Your task to perform on an android device: Search for vegetarian restaurants on Maps Image 0: 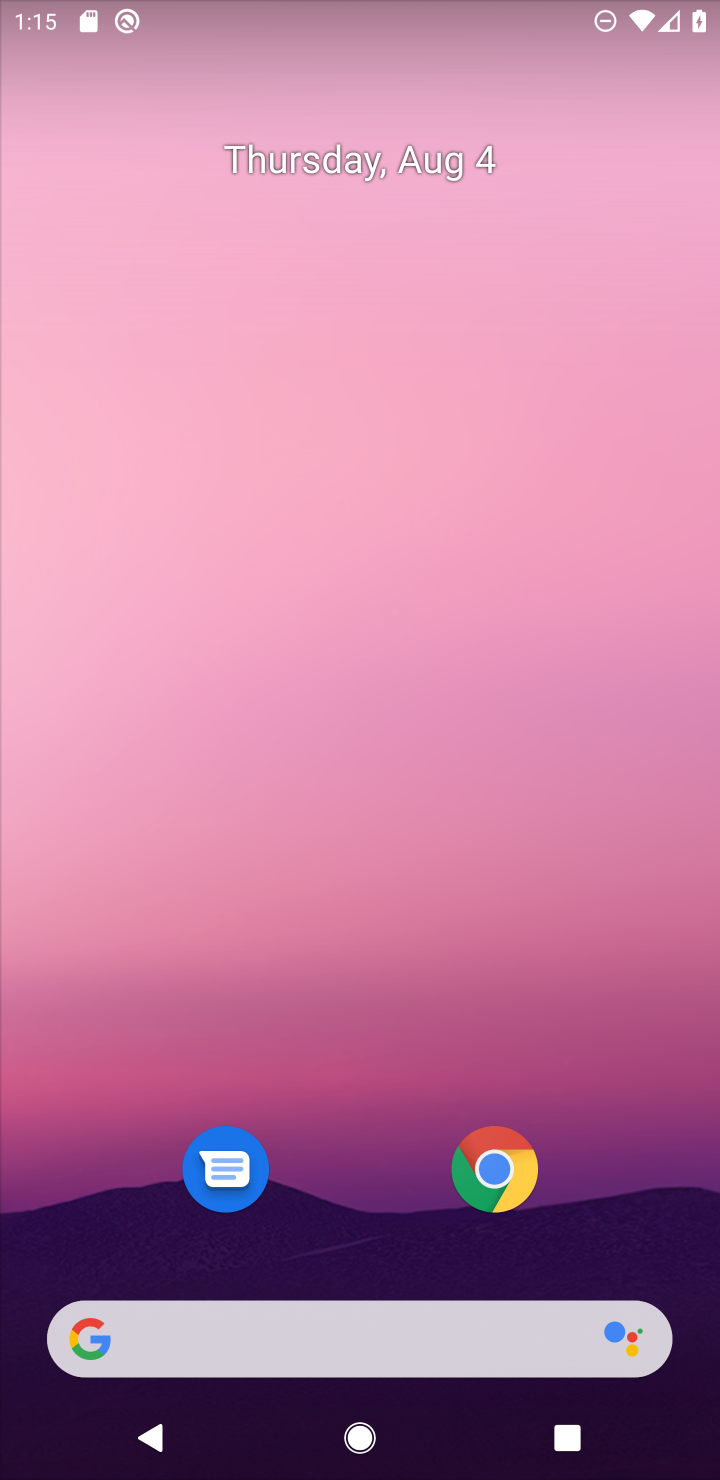
Step 0: drag from (352, 1242) to (414, 52)
Your task to perform on an android device: Search for vegetarian restaurants on Maps Image 1: 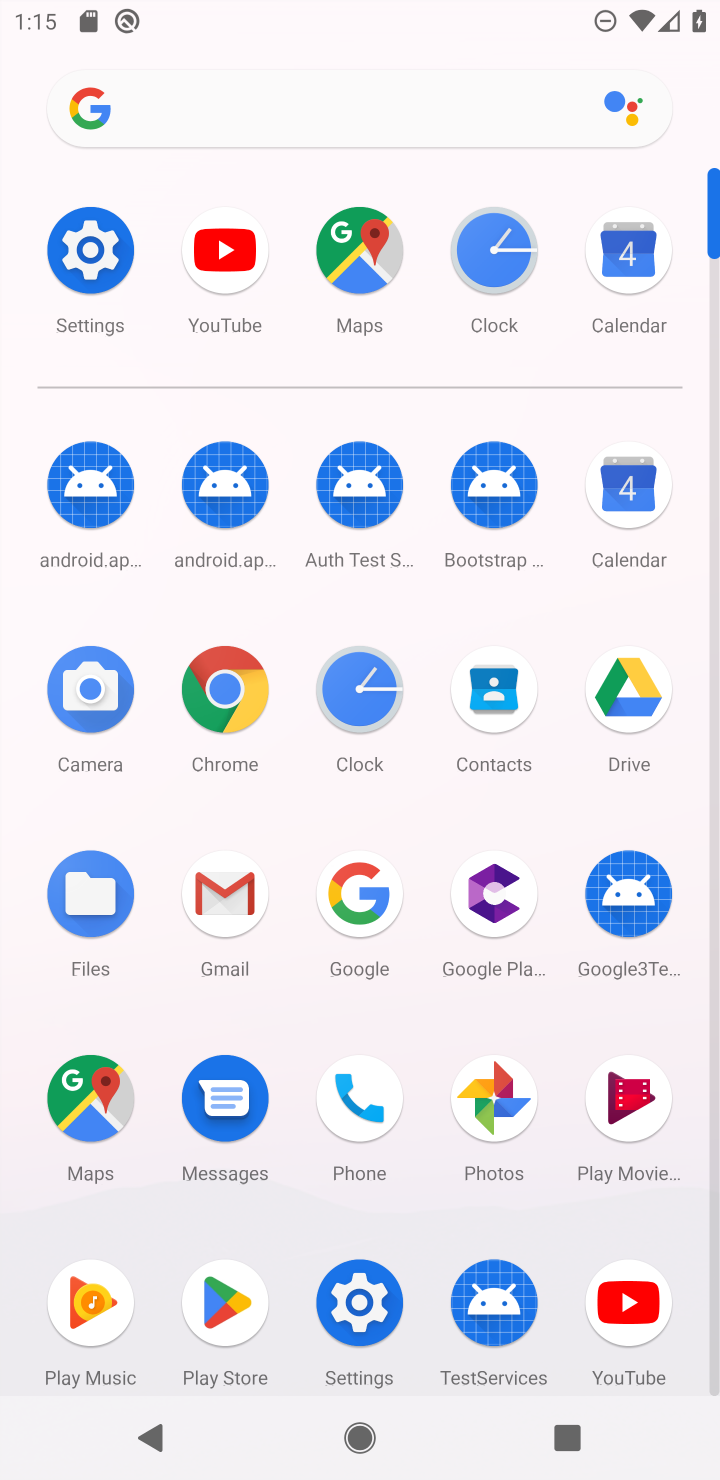
Step 1: click (359, 255)
Your task to perform on an android device: Search for vegetarian restaurants on Maps Image 2: 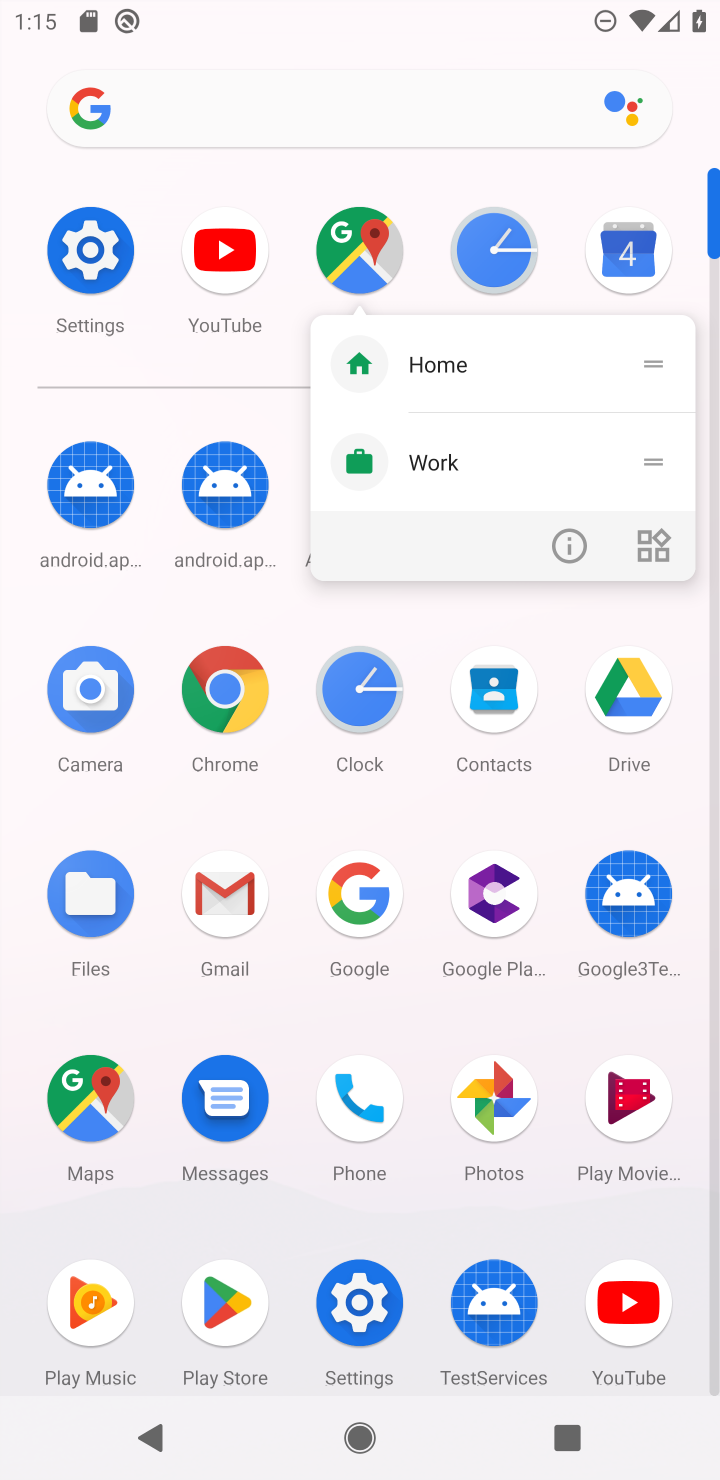
Step 2: click (359, 255)
Your task to perform on an android device: Search for vegetarian restaurants on Maps Image 3: 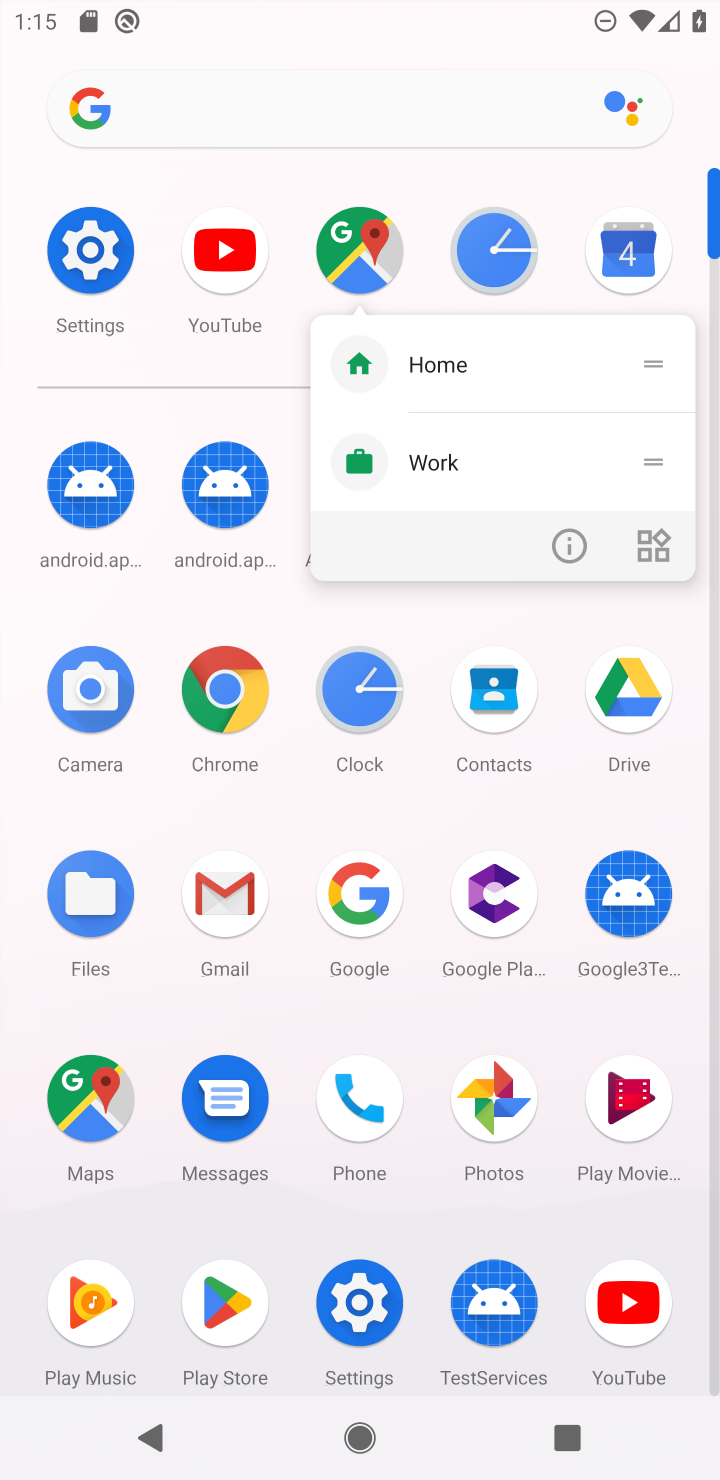
Step 3: click (359, 255)
Your task to perform on an android device: Search for vegetarian restaurants on Maps Image 4: 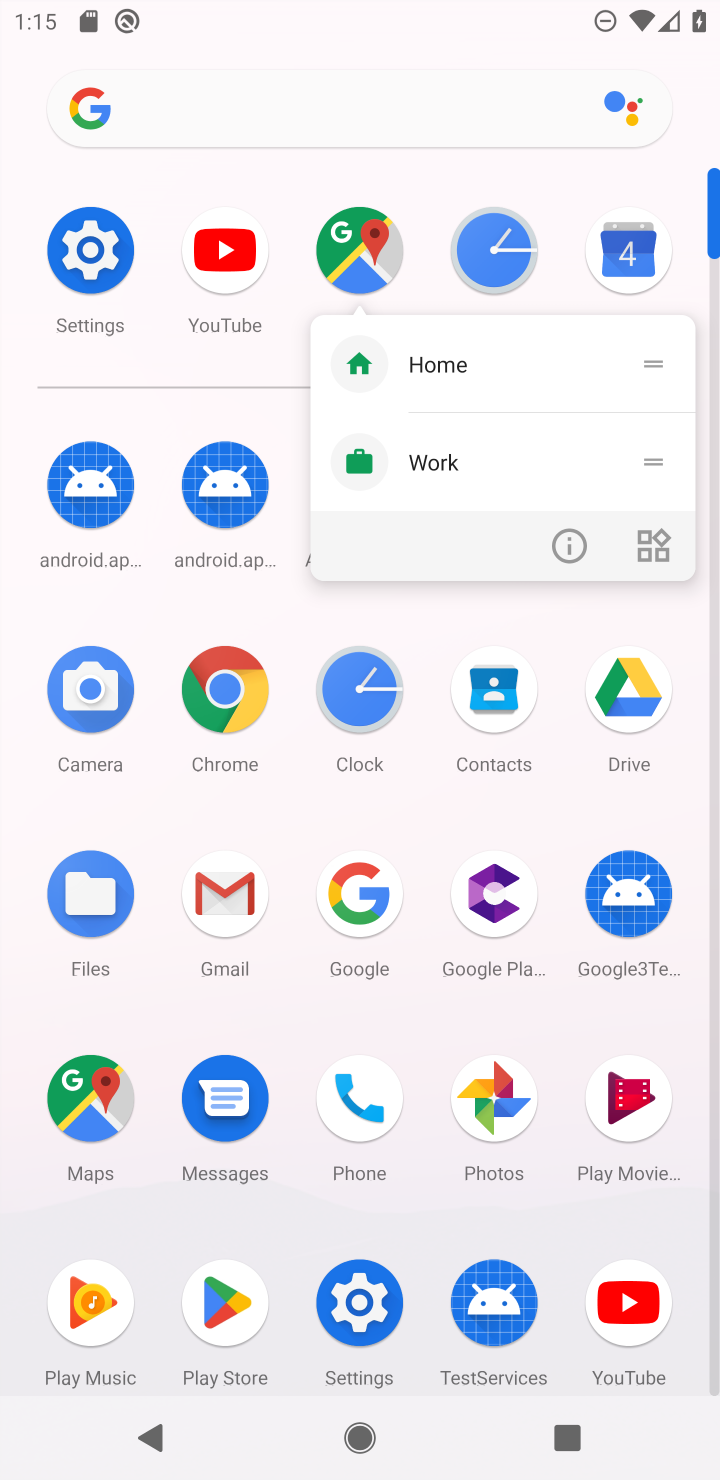
Step 4: click (359, 255)
Your task to perform on an android device: Search for vegetarian restaurants on Maps Image 5: 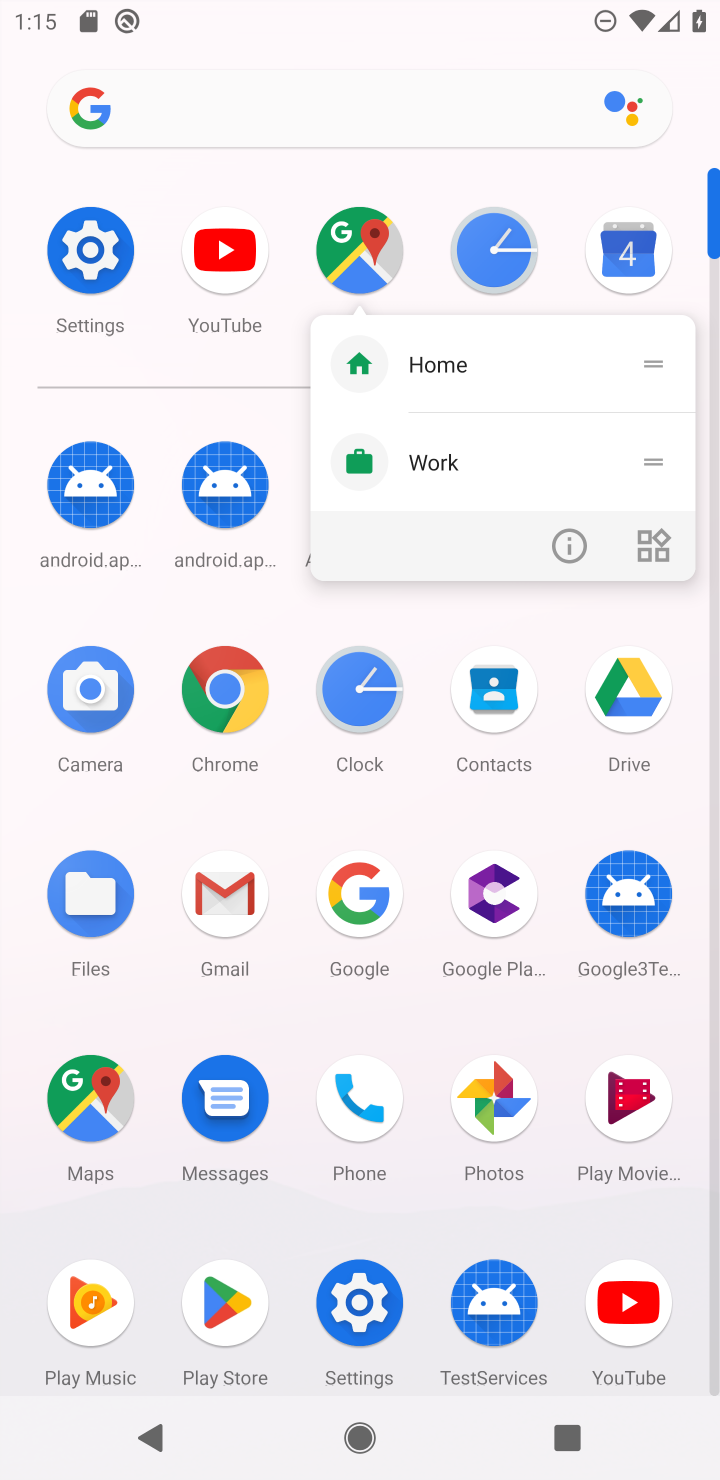
Step 5: click (359, 255)
Your task to perform on an android device: Search for vegetarian restaurants on Maps Image 6: 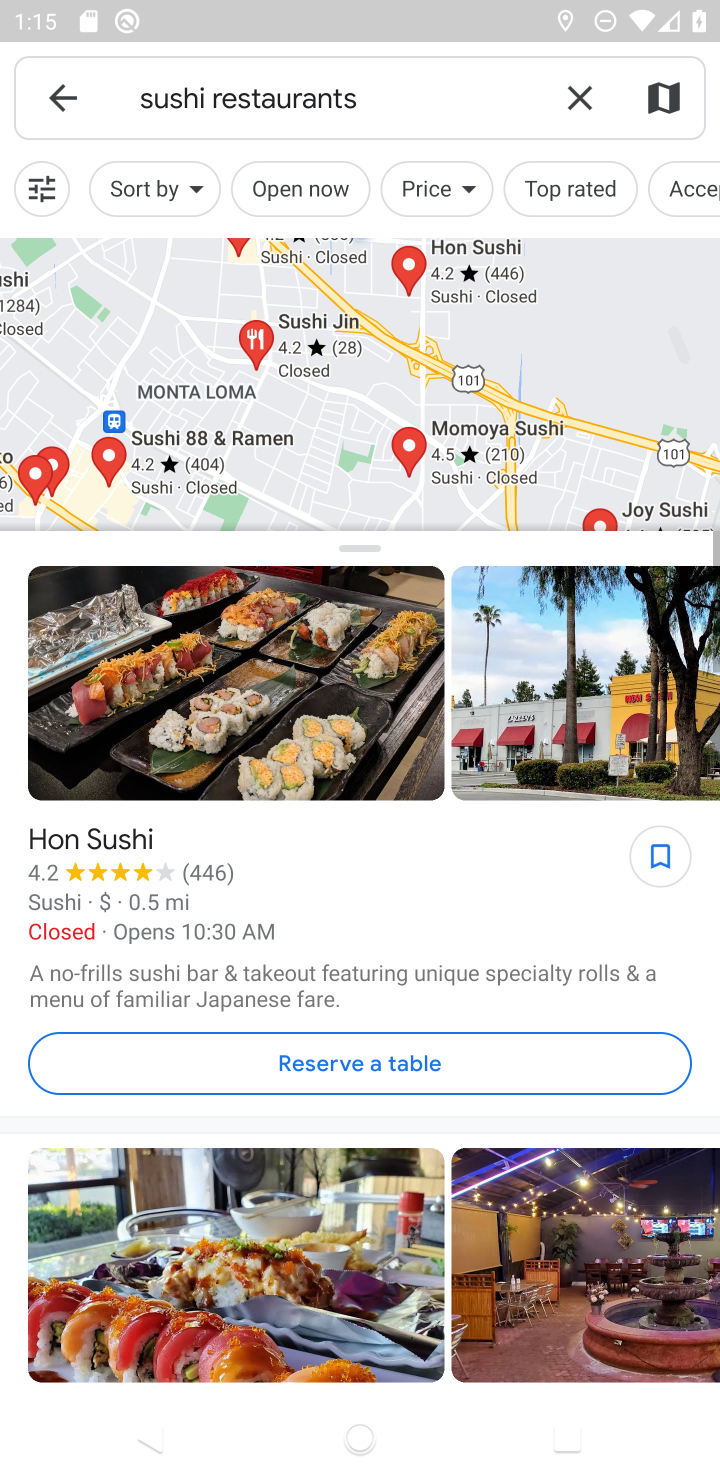
Step 6: click (569, 93)
Your task to perform on an android device: Search for vegetarian restaurants on Maps Image 7: 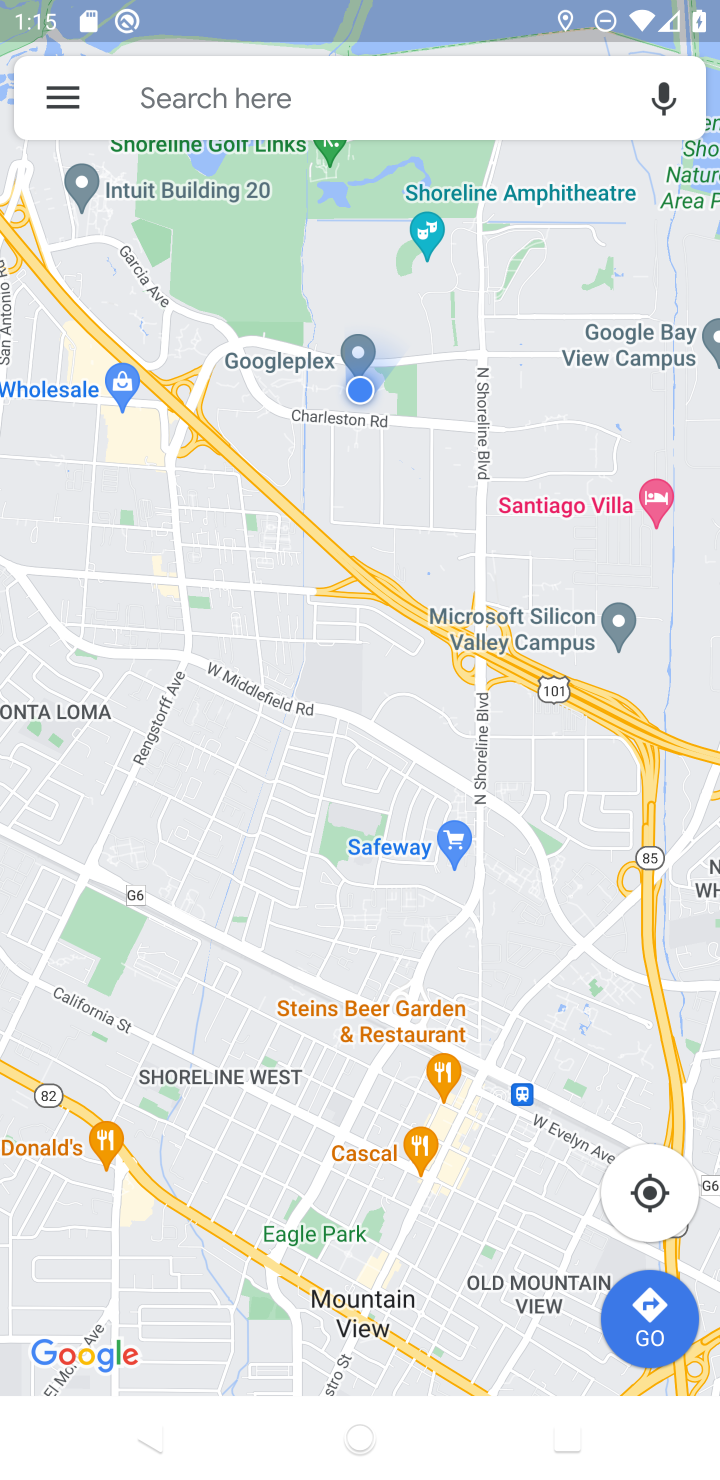
Step 7: click (201, 114)
Your task to perform on an android device: Search for vegetarian restaurants on Maps Image 8: 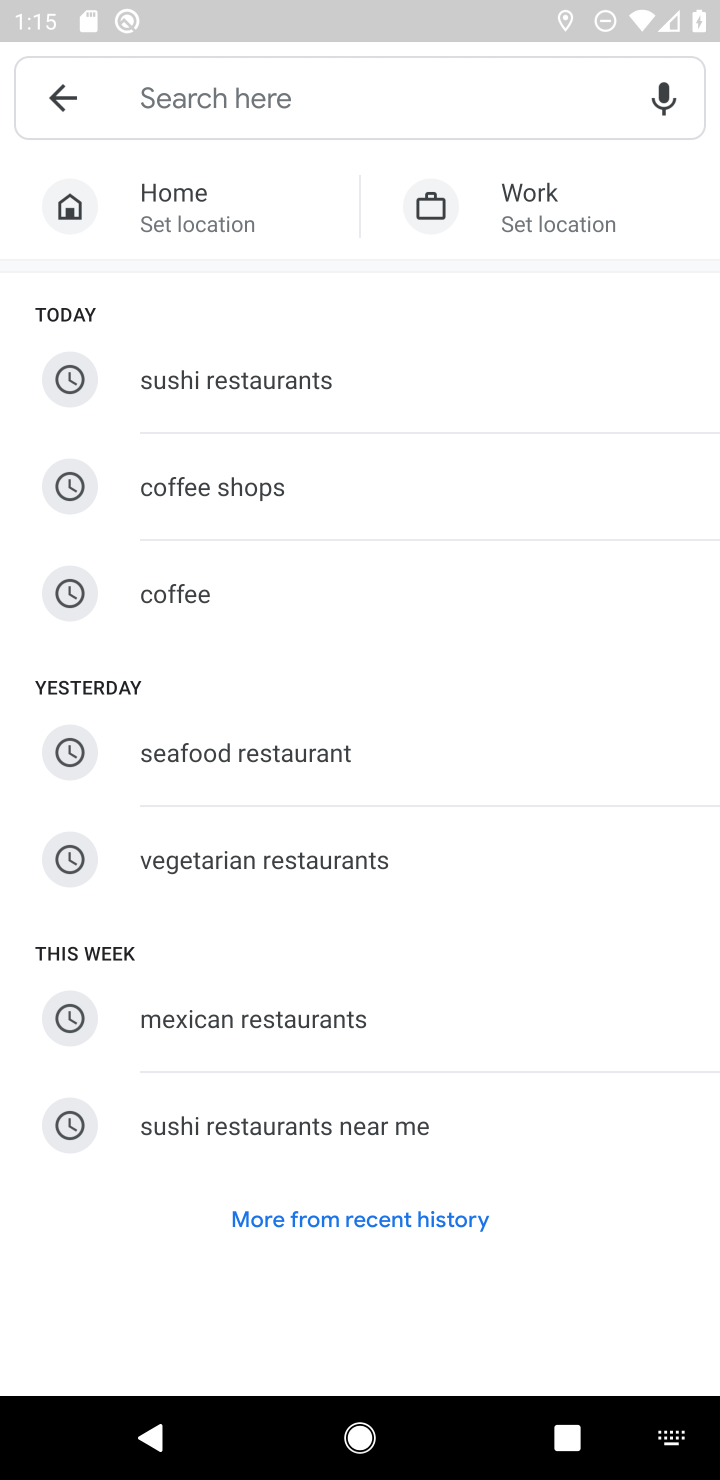
Step 8: type "vegetarian restaurants"
Your task to perform on an android device: Search for vegetarian restaurants on Maps Image 9: 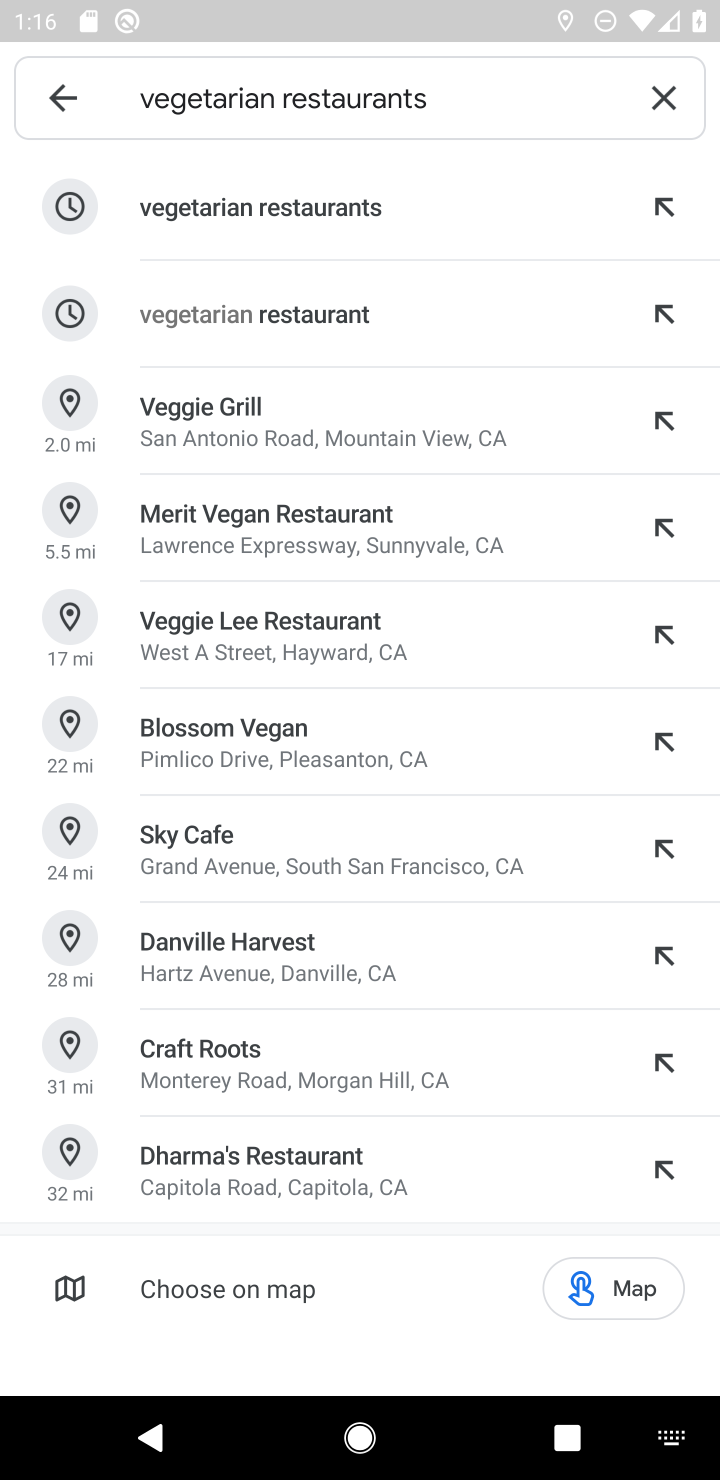
Step 9: click (304, 197)
Your task to perform on an android device: Search for vegetarian restaurants on Maps Image 10: 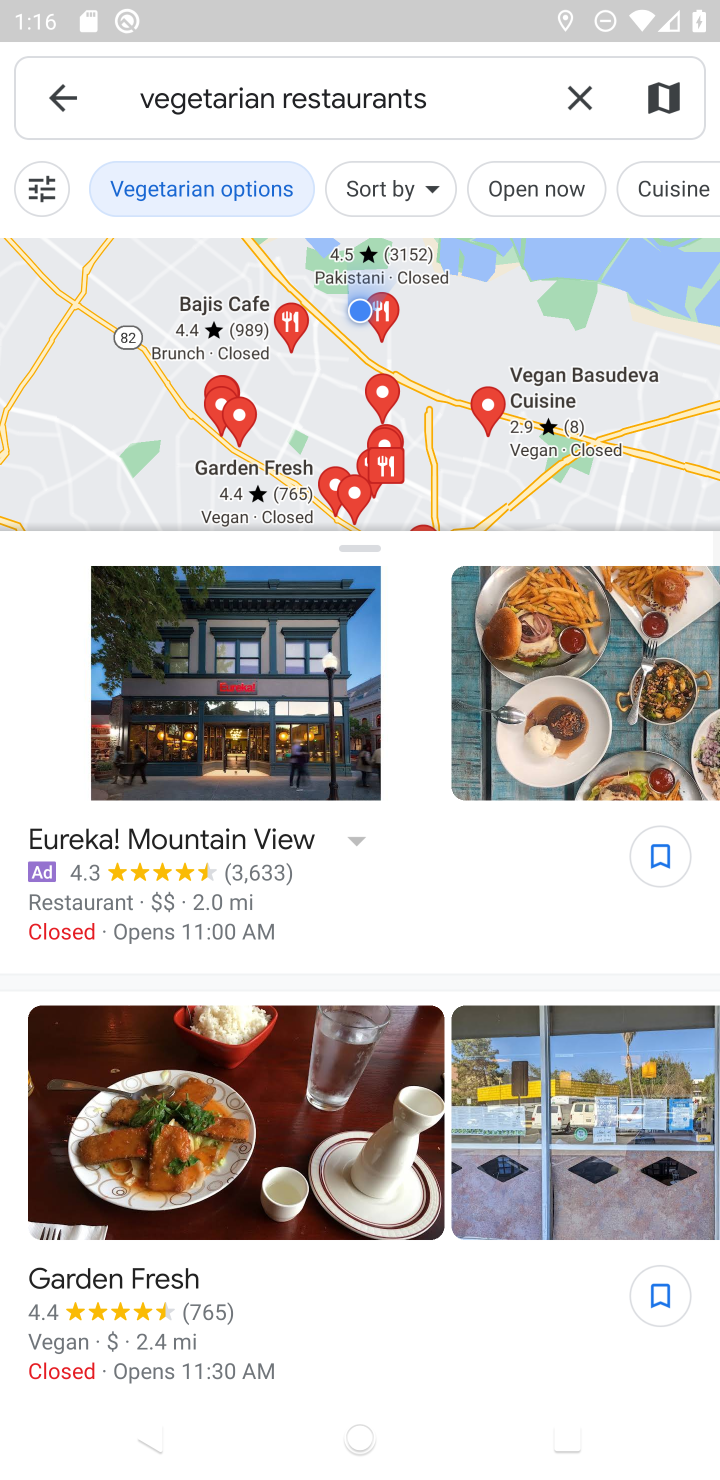
Step 10: task complete